Your task to perform on an android device: Open Chrome and go to settings Image 0: 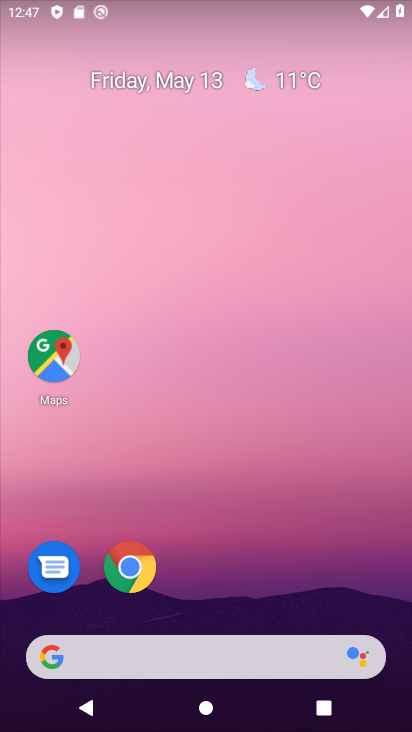
Step 0: click (142, 571)
Your task to perform on an android device: Open Chrome and go to settings Image 1: 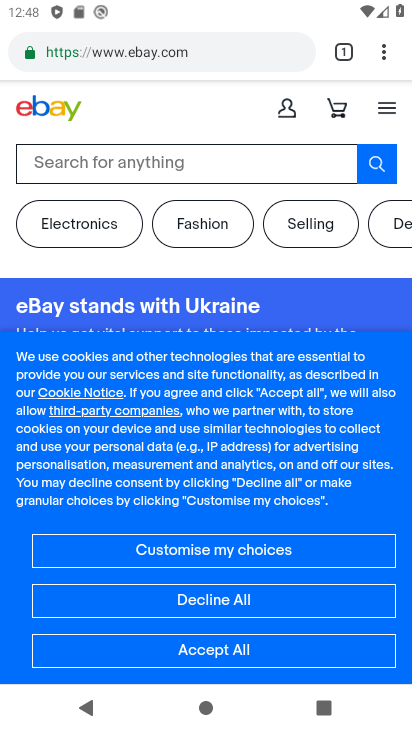
Step 1: click (382, 54)
Your task to perform on an android device: Open Chrome and go to settings Image 2: 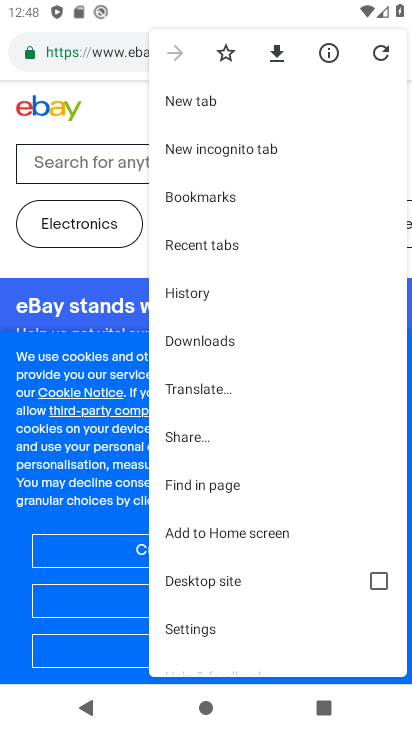
Step 2: click (197, 635)
Your task to perform on an android device: Open Chrome and go to settings Image 3: 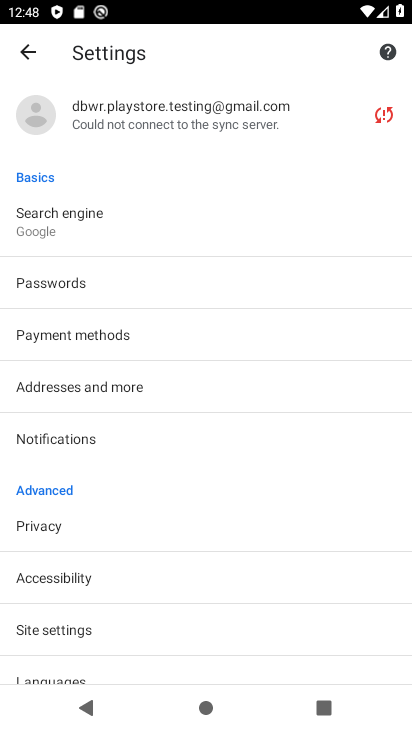
Step 3: task complete